Your task to perform on an android device: Search for vegetarian restaurants on Maps Image 0: 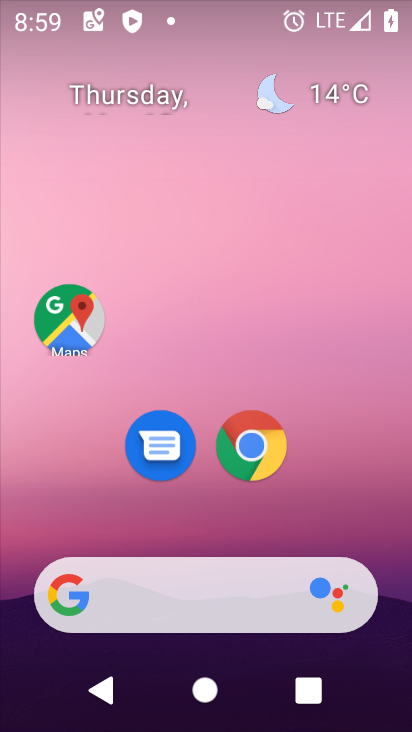
Step 0: drag from (226, 694) to (228, 66)
Your task to perform on an android device: Search for vegetarian restaurants on Maps Image 1: 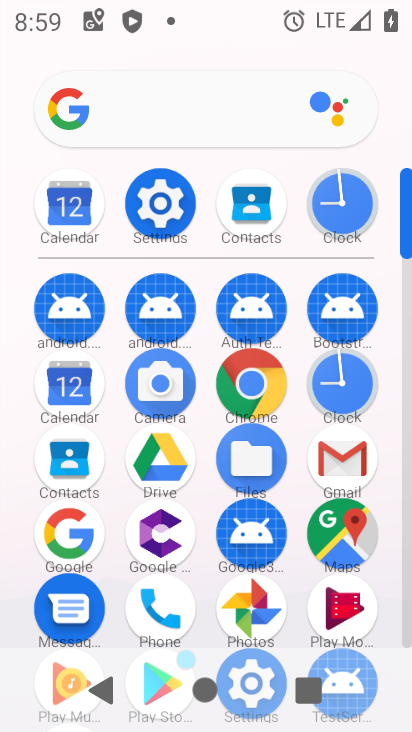
Step 1: click (339, 530)
Your task to perform on an android device: Search for vegetarian restaurants on Maps Image 2: 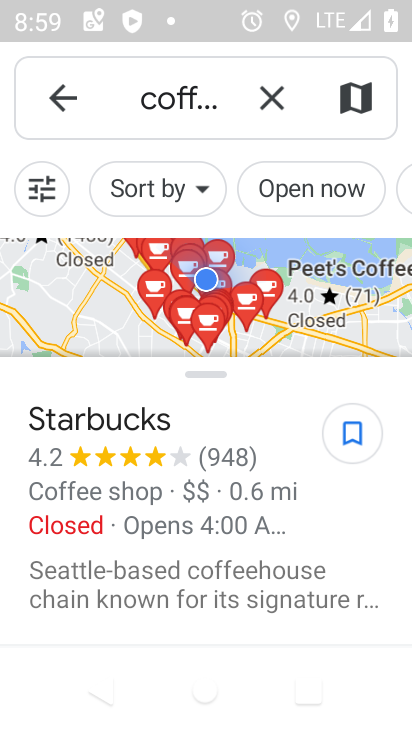
Step 2: click (273, 94)
Your task to perform on an android device: Search for vegetarian restaurants on Maps Image 3: 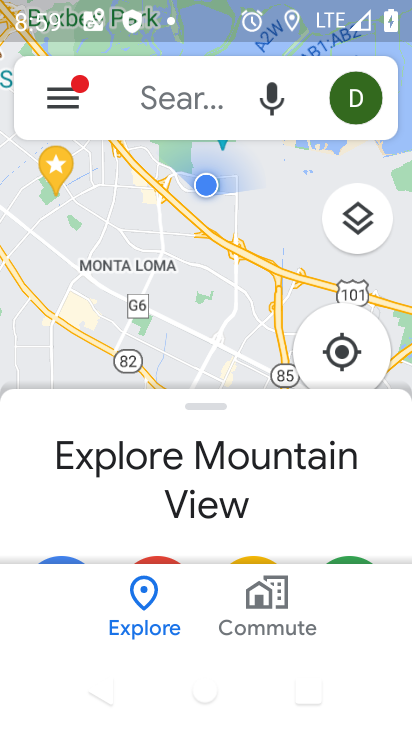
Step 3: click (137, 104)
Your task to perform on an android device: Search for vegetarian restaurants on Maps Image 4: 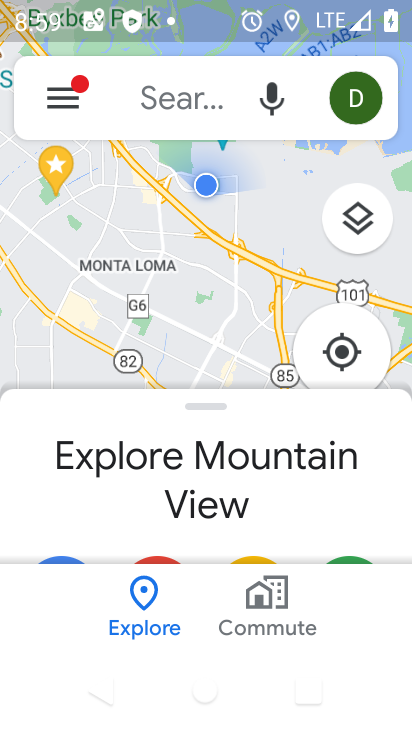
Step 4: click (169, 100)
Your task to perform on an android device: Search for vegetarian restaurants on Maps Image 5: 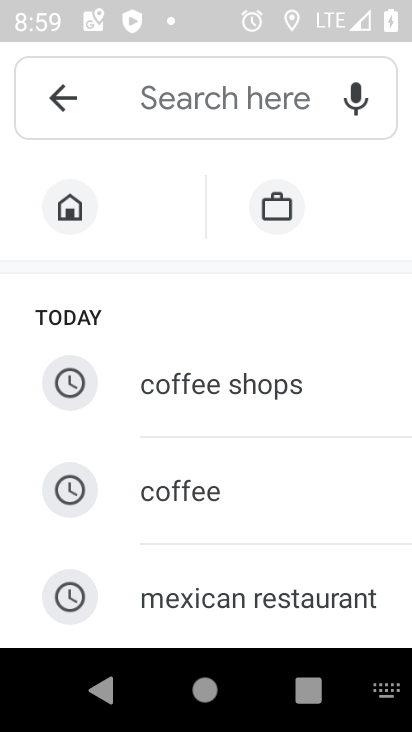
Step 5: type "vegetarian restaurants"
Your task to perform on an android device: Search for vegetarian restaurants on Maps Image 6: 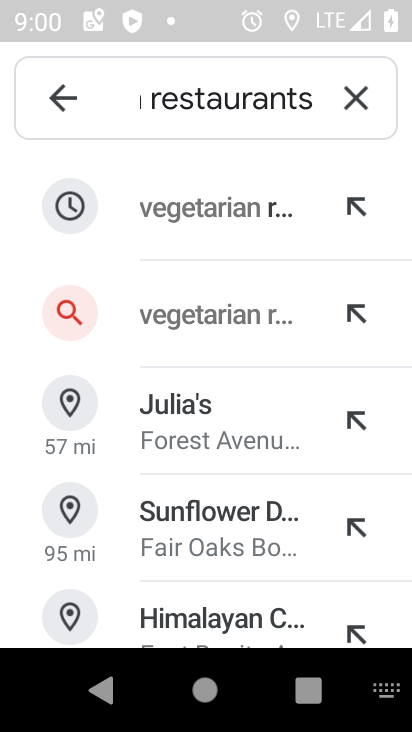
Step 6: click (192, 213)
Your task to perform on an android device: Search for vegetarian restaurants on Maps Image 7: 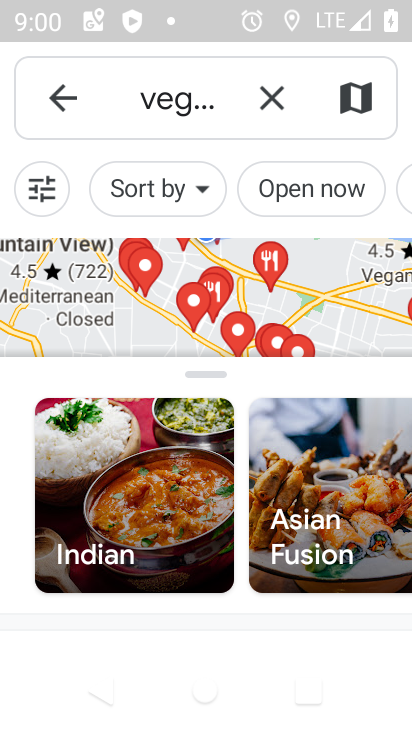
Step 7: task complete